Your task to perform on an android device: open sync settings in chrome Image 0: 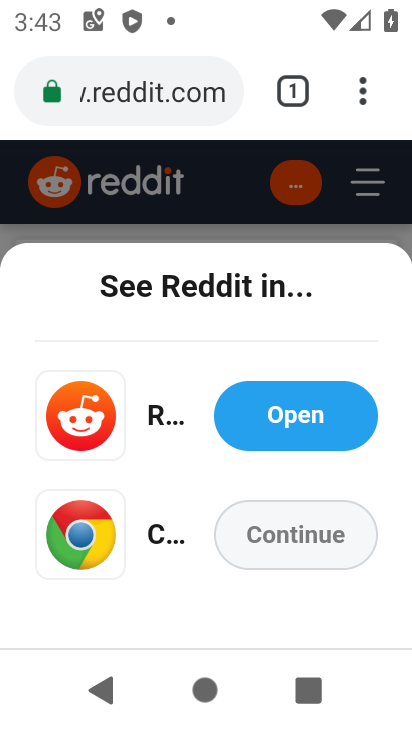
Step 0: press home button
Your task to perform on an android device: open sync settings in chrome Image 1: 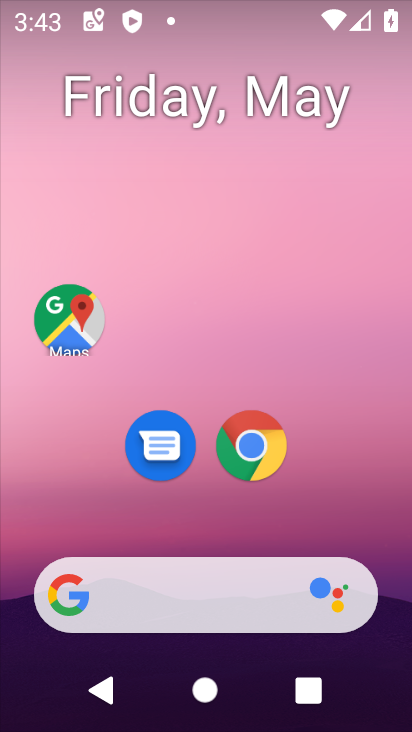
Step 1: click (255, 466)
Your task to perform on an android device: open sync settings in chrome Image 2: 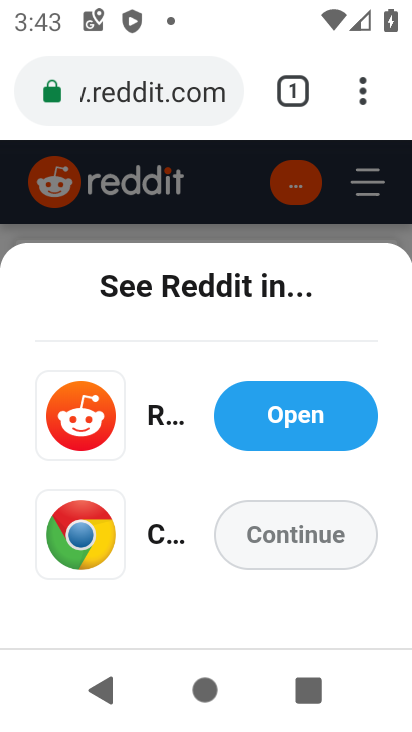
Step 2: click (371, 91)
Your task to perform on an android device: open sync settings in chrome Image 3: 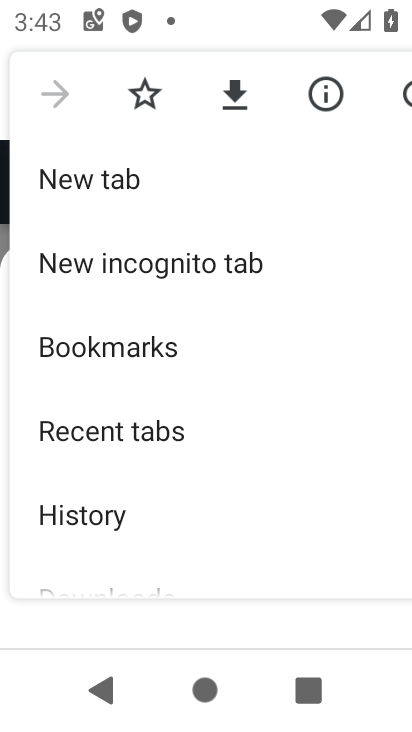
Step 3: drag from (102, 498) to (142, 218)
Your task to perform on an android device: open sync settings in chrome Image 4: 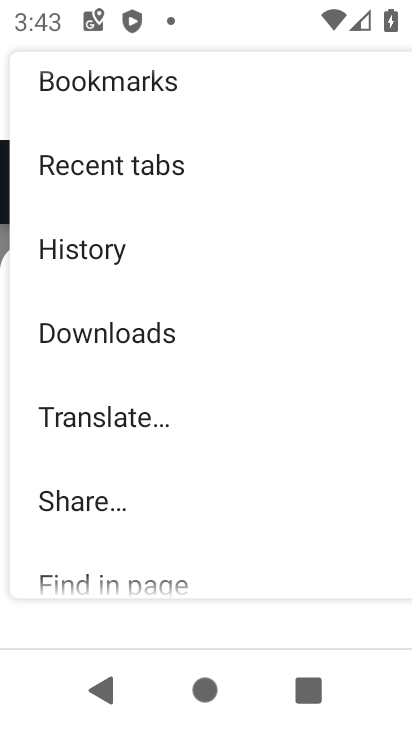
Step 4: drag from (142, 491) to (185, 245)
Your task to perform on an android device: open sync settings in chrome Image 5: 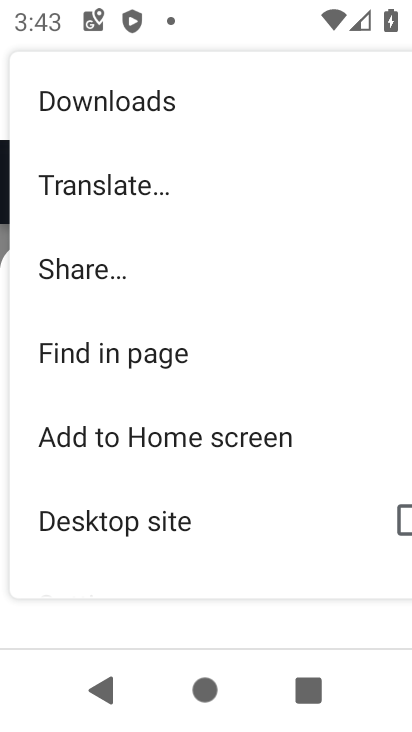
Step 5: drag from (99, 547) to (167, 194)
Your task to perform on an android device: open sync settings in chrome Image 6: 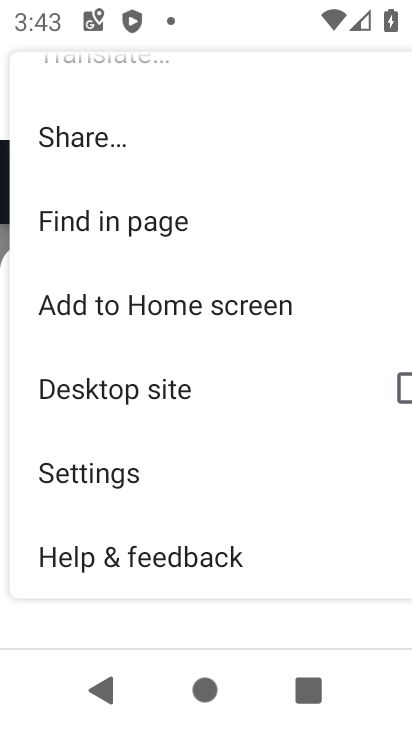
Step 6: click (101, 478)
Your task to perform on an android device: open sync settings in chrome Image 7: 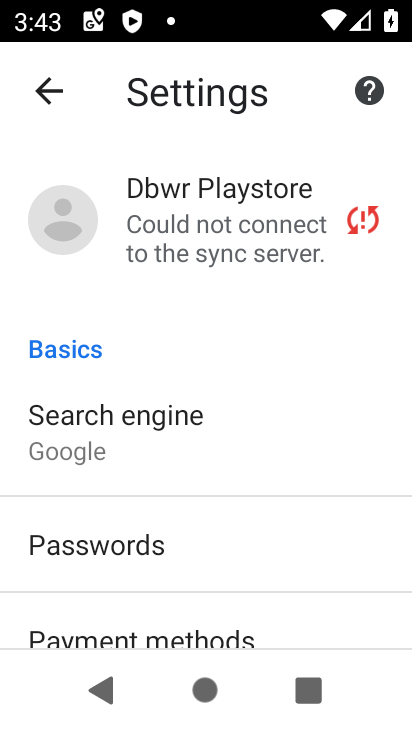
Step 7: click (201, 228)
Your task to perform on an android device: open sync settings in chrome Image 8: 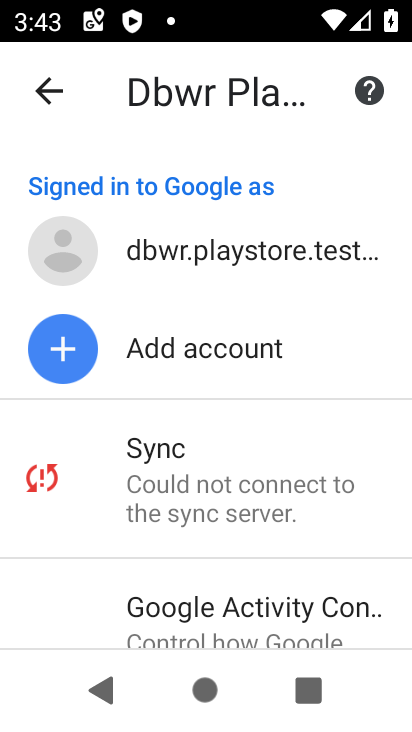
Step 8: click (217, 463)
Your task to perform on an android device: open sync settings in chrome Image 9: 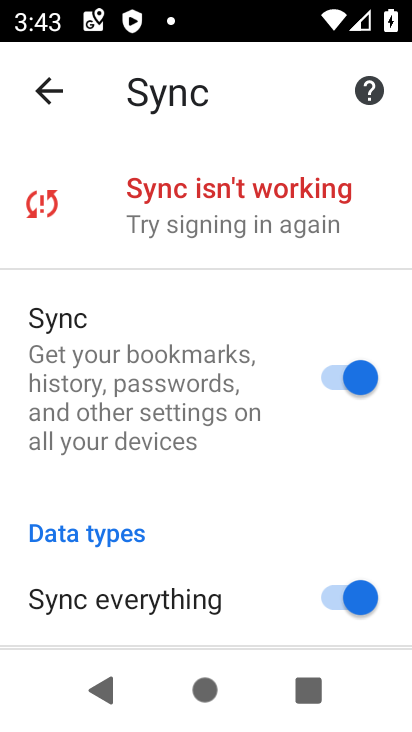
Step 9: task complete